Your task to perform on an android device: Show the shopping cart on newegg.com. Add rayovac triple a to the cart on newegg.com, then select checkout. Image 0: 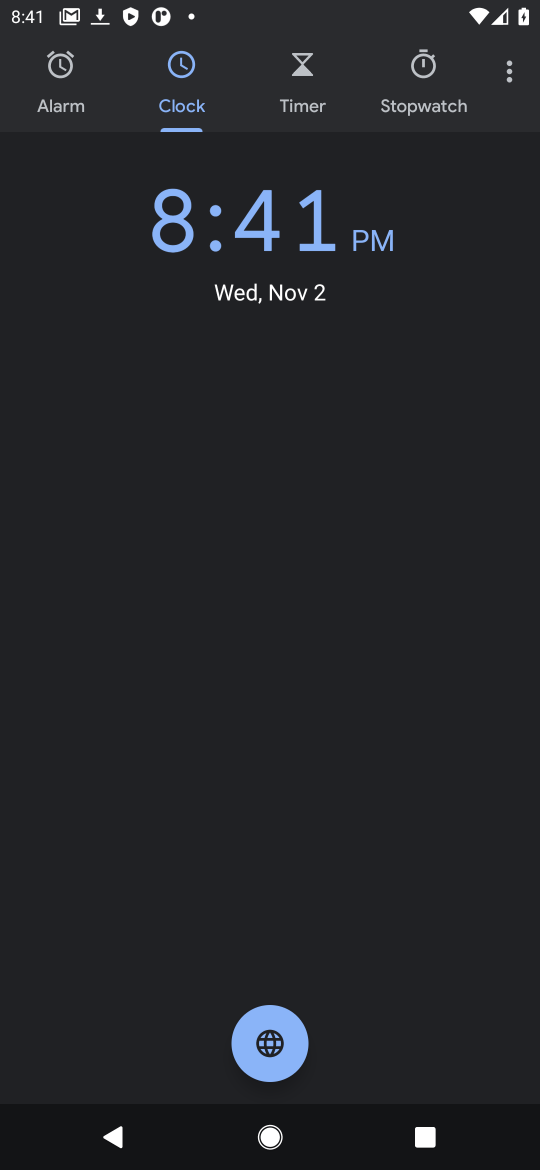
Step 0: press home button
Your task to perform on an android device: Show the shopping cart on newegg.com. Add rayovac triple a to the cart on newegg.com, then select checkout. Image 1: 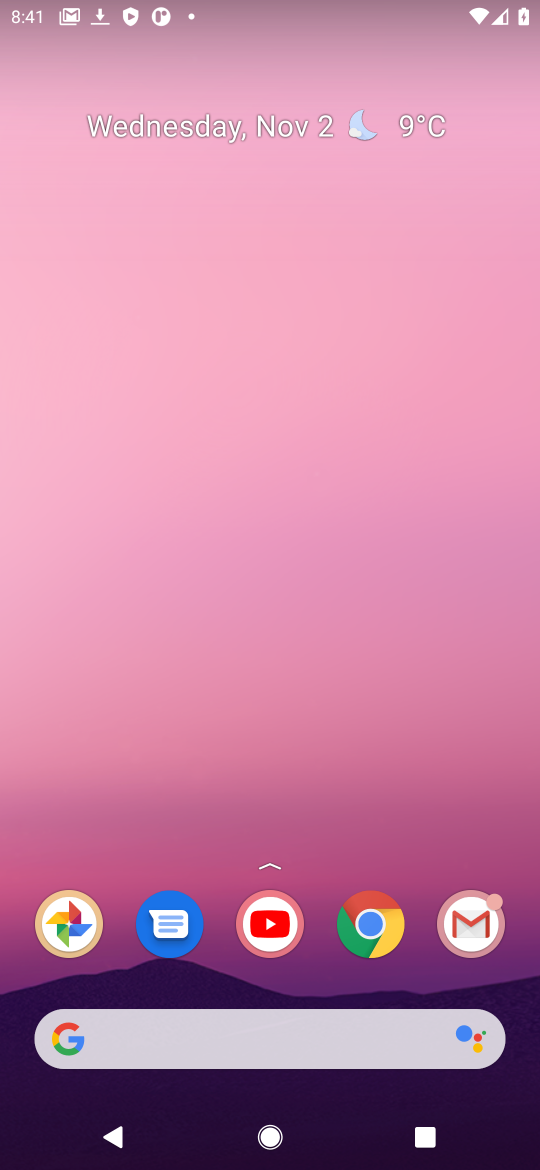
Step 1: click (343, 942)
Your task to perform on an android device: Show the shopping cart on newegg.com. Add rayovac triple a to the cart on newegg.com, then select checkout. Image 2: 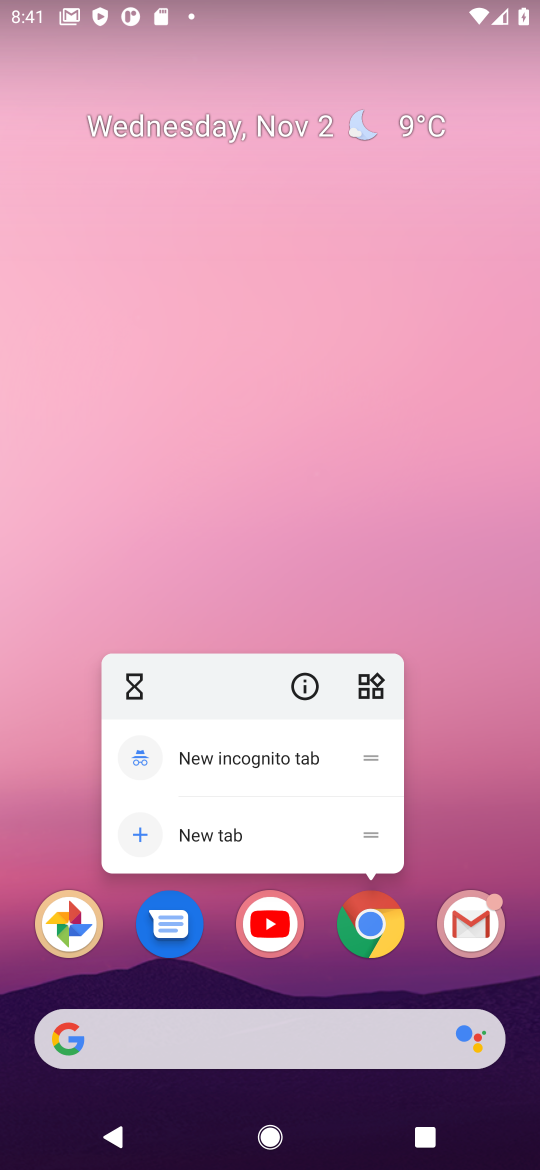
Step 2: click (389, 936)
Your task to perform on an android device: Show the shopping cart on newegg.com. Add rayovac triple a to the cart on newegg.com, then select checkout. Image 3: 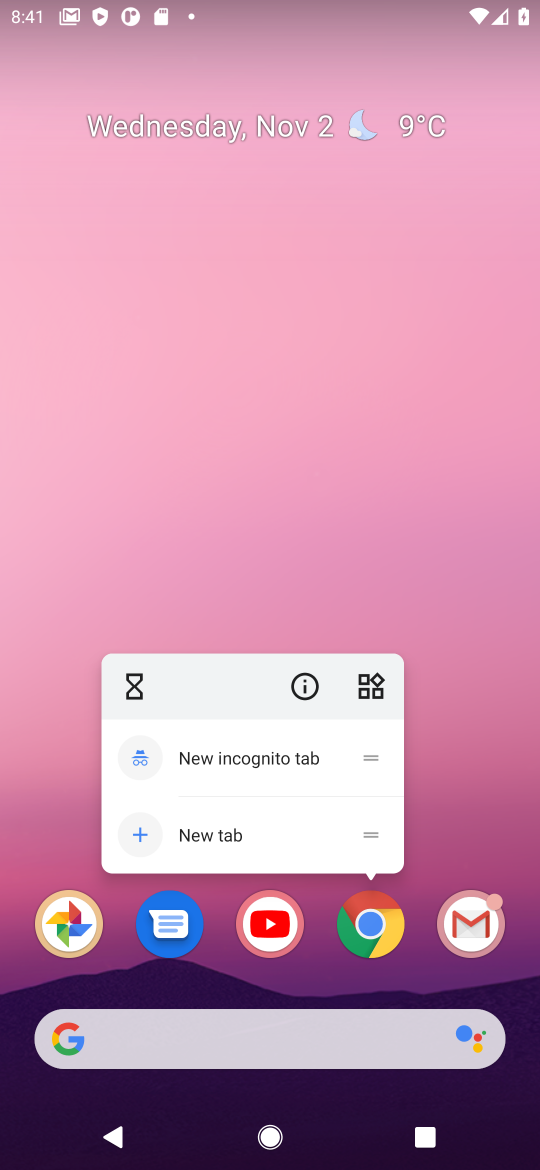
Step 3: click (399, 940)
Your task to perform on an android device: Show the shopping cart on newegg.com. Add rayovac triple a to the cart on newegg.com, then select checkout. Image 4: 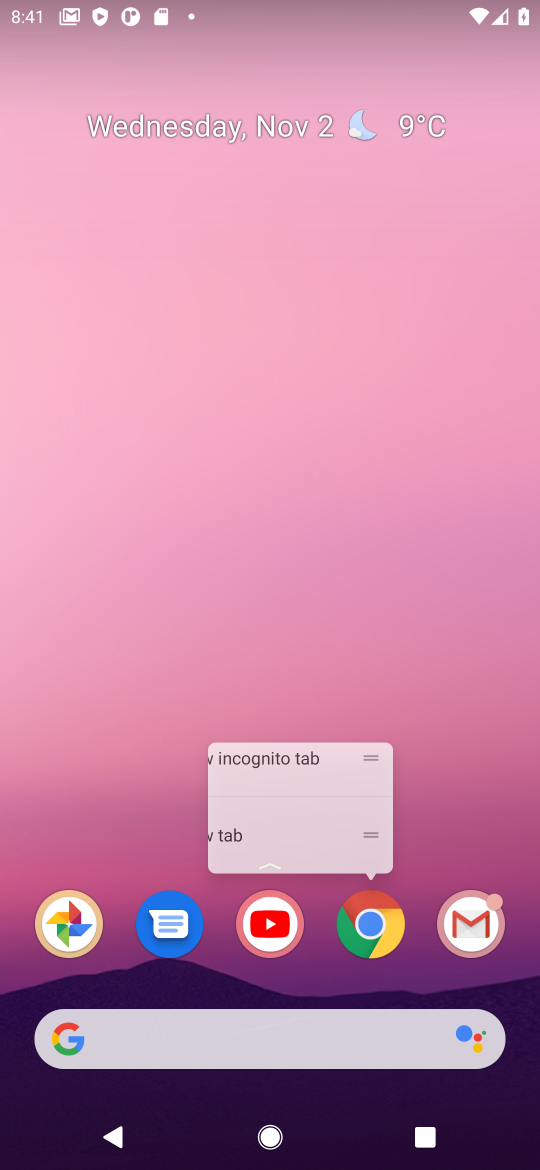
Step 4: click (387, 933)
Your task to perform on an android device: Show the shopping cart on newegg.com. Add rayovac triple a to the cart on newegg.com, then select checkout. Image 5: 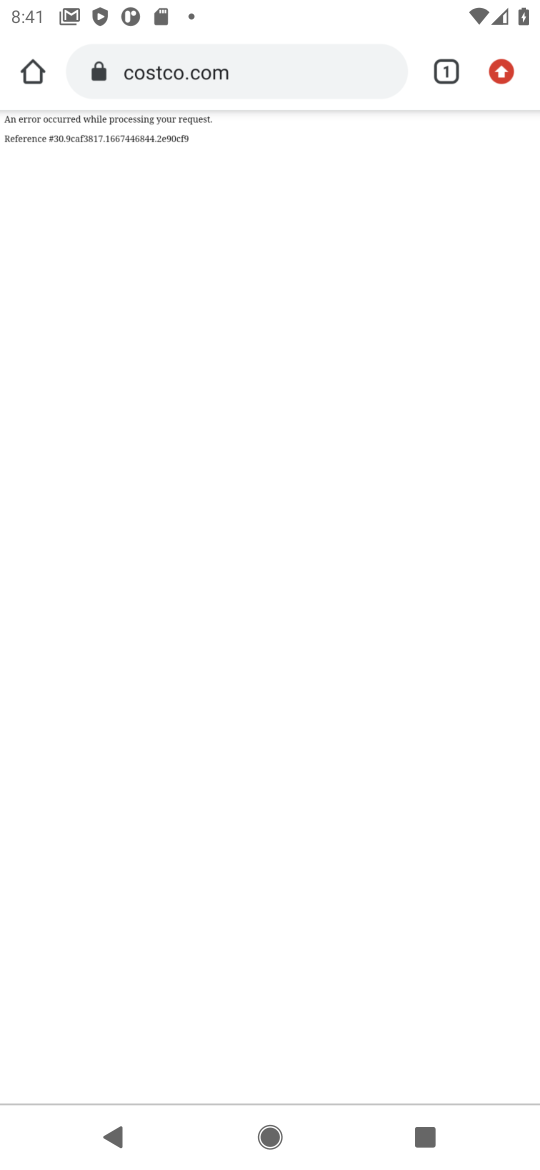
Step 5: press back button
Your task to perform on an android device: Show the shopping cart on newegg.com. Add rayovac triple a to the cart on newegg.com, then select checkout. Image 6: 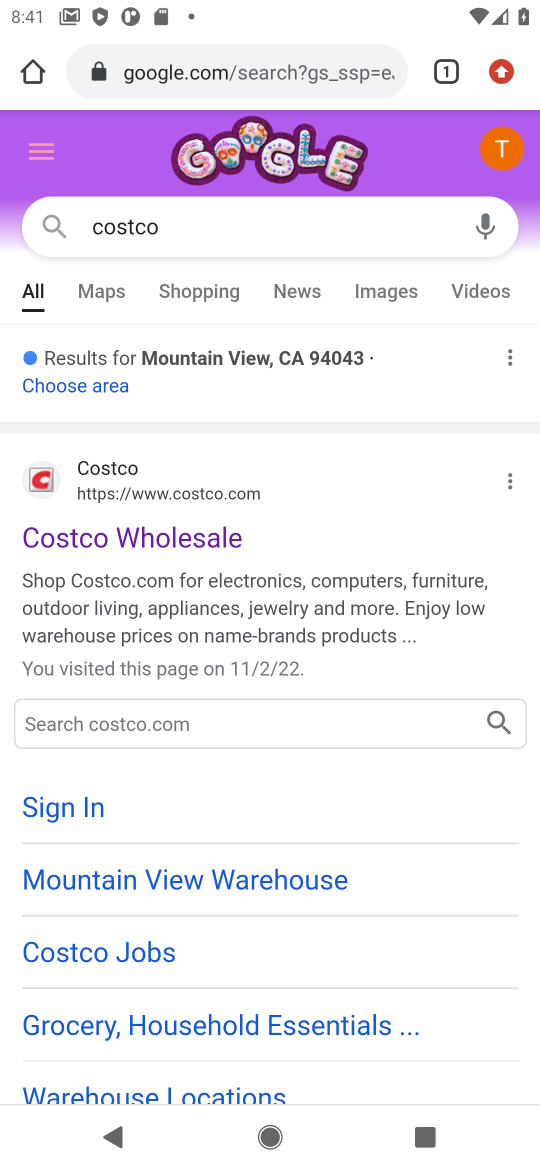
Step 6: click (143, 228)
Your task to perform on an android device: Show the shopping cart on newegg.com. Add rayovac triple a to the cart on newegg.com, then select checkout. Image 7: 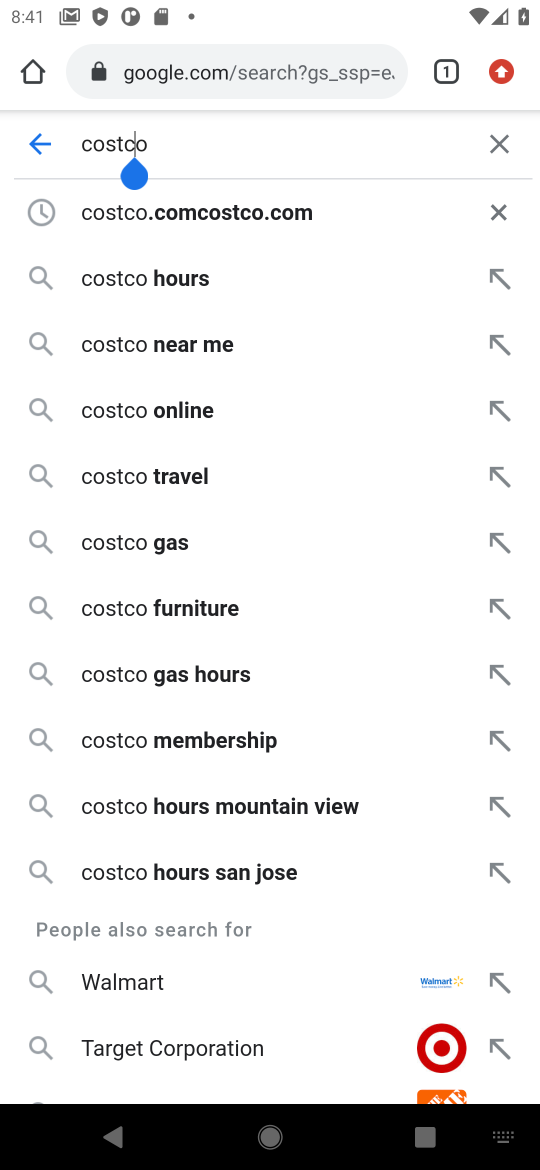
Step 7: click (500, 146)
Your task to perform on an android device: Show the shopping cart on newegg.com. Add rayovac triple a to the cart on newegg.com, then select checkout. Image 8: 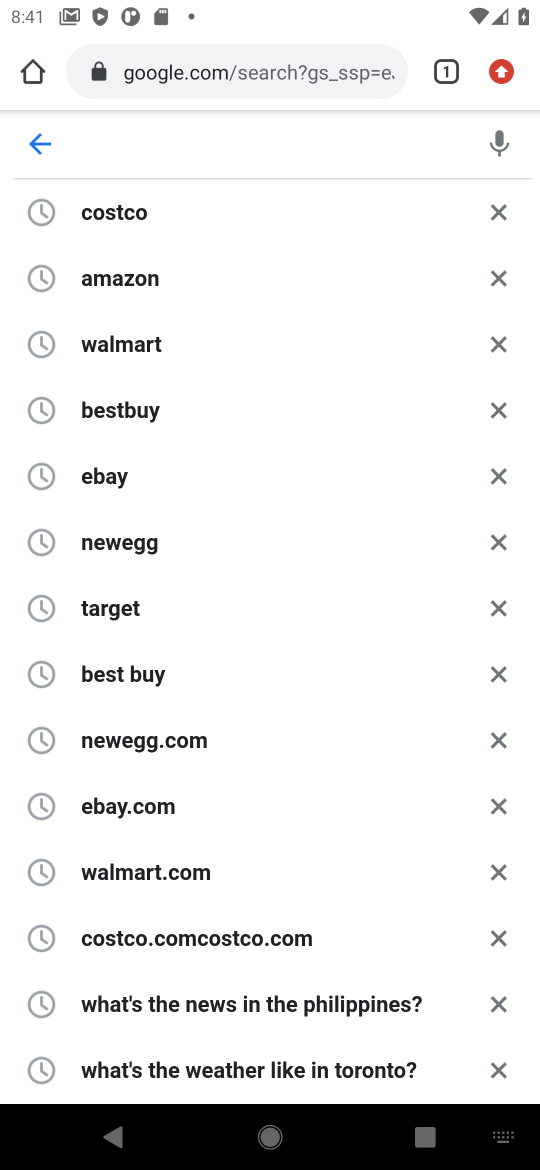
Step 8: type "newegg"
Your task to perform on an android device: Show the shopping cart on newegg.com. Add rayovac triple a to the cart on newegg.com, then select checkout. Image 9: 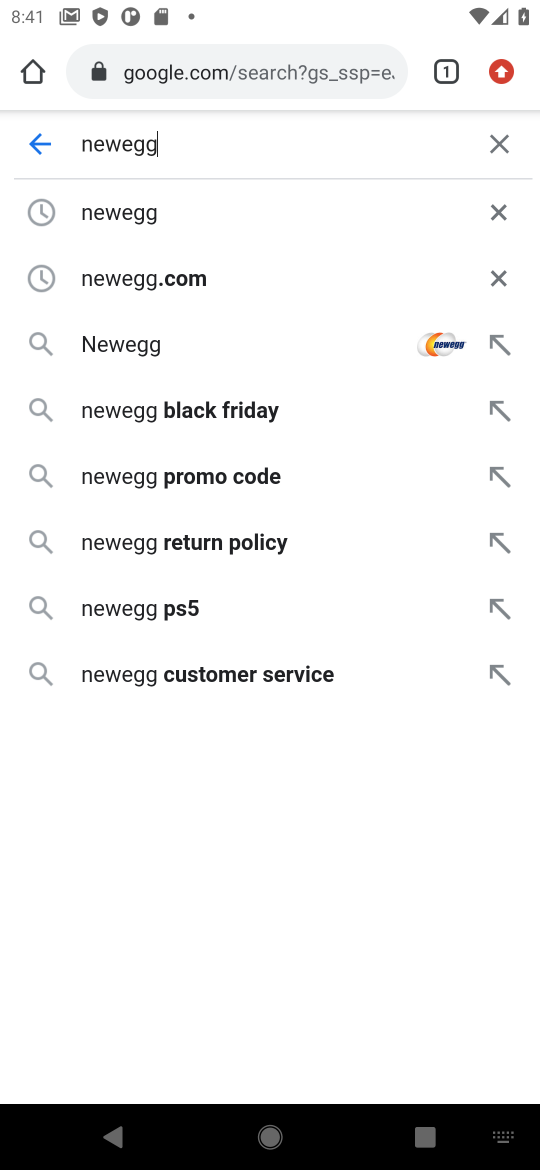
Step 9: type ""
Your task to perform on an android device: Show the shopping cart on newegg.com. Add rayovac triple a to the cart on newegg.com, then select checkout. Image 10: 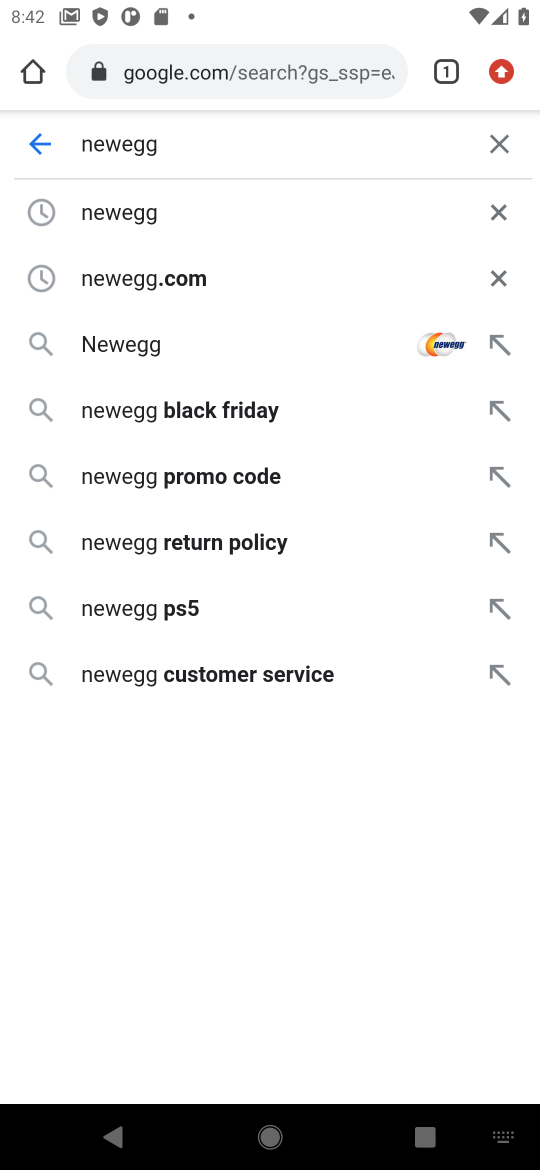
Step 10: click (90, 218)
Your task to perform on an android device: Show the shopping cart on newegg.com. Add rayovac triple a to the cart on newegg.com, then select checkout. Image 11: 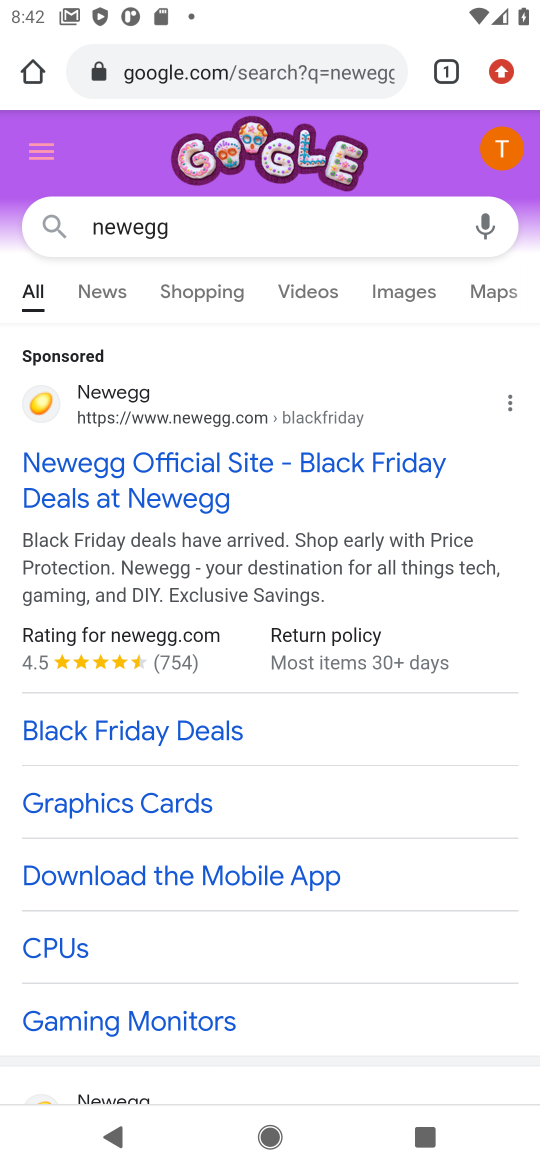
Step 11: drag from (296, 944) to (341, 327)
Your task to perform on an android device: Show the shopping cart on newegg.com. Add rayovac triple a to the cart on newegg.com, then select checkout. Image 12: 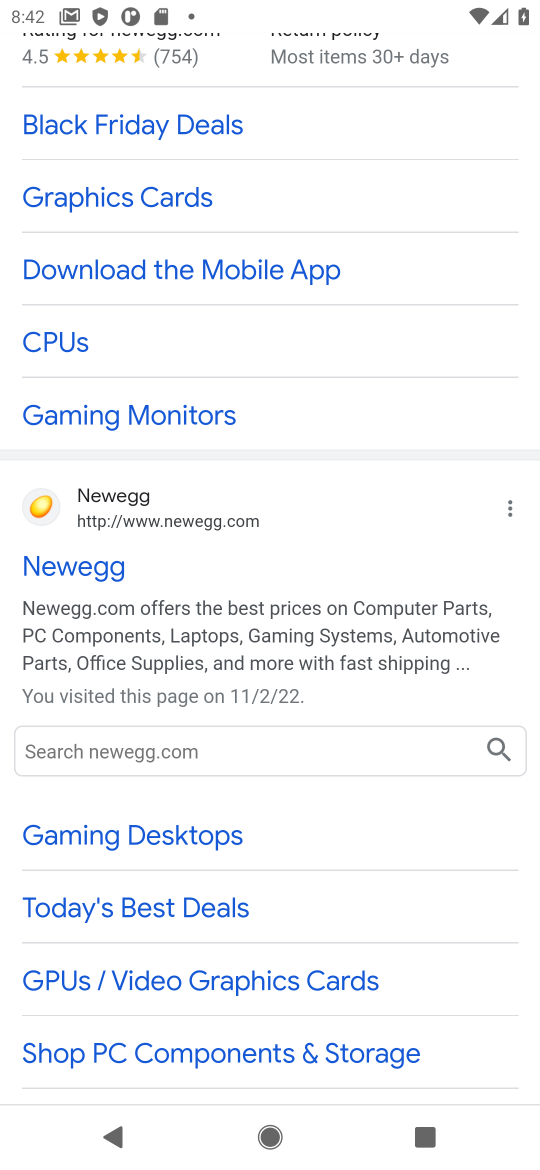
Step 12: click (27, 567)
Your task to perform on an android device: Show the shopping cart on newegg.com. Add rayovac triple a to the cart on newegg.com, then select checkout. Image 13: 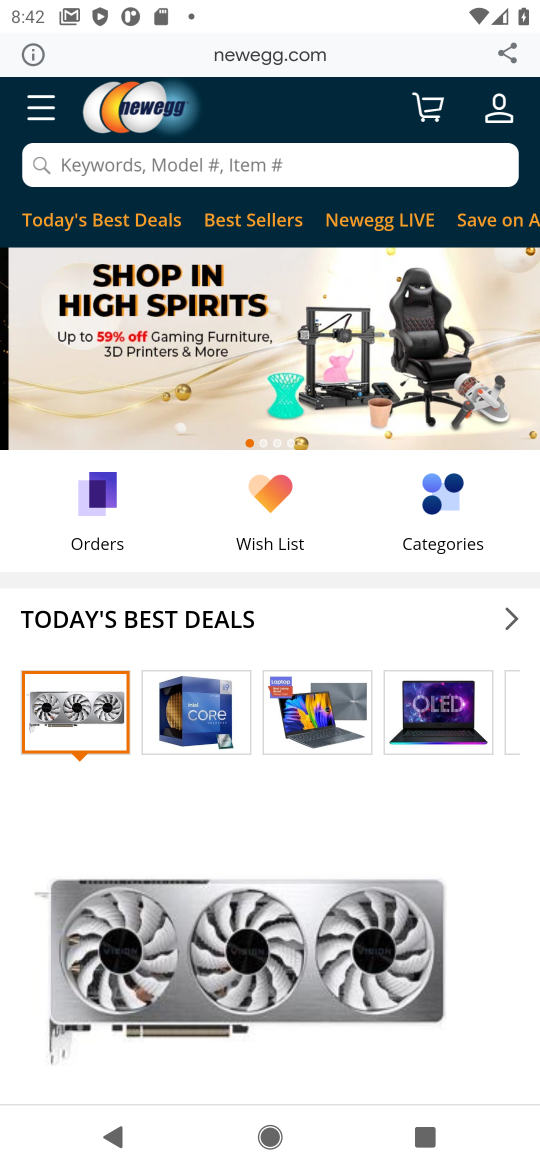
Step 13: click (87, 169)
Your task to perform on an android device: Show the shopping cart on newegg.com. Add rayovac triple a to the cart on newegg.com, then select checkout. Image 14: 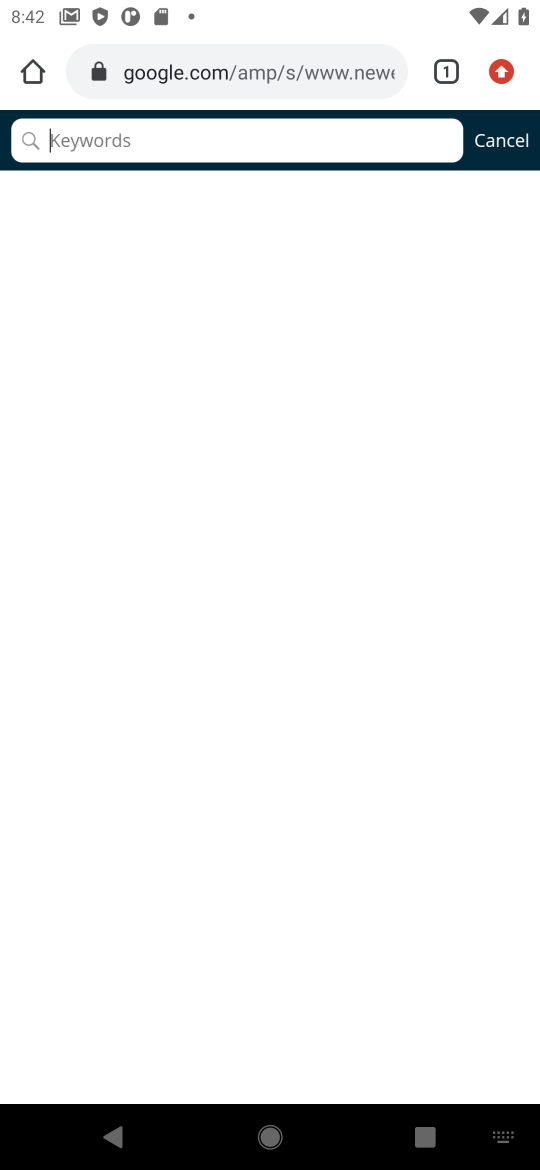
Step 14: type "rayovac triple"
Your task to perform on an android device: Show the shopping cart on newegg.com. Add rayovac triple a to the cart on newegg.com, then select checkout. Image 15: 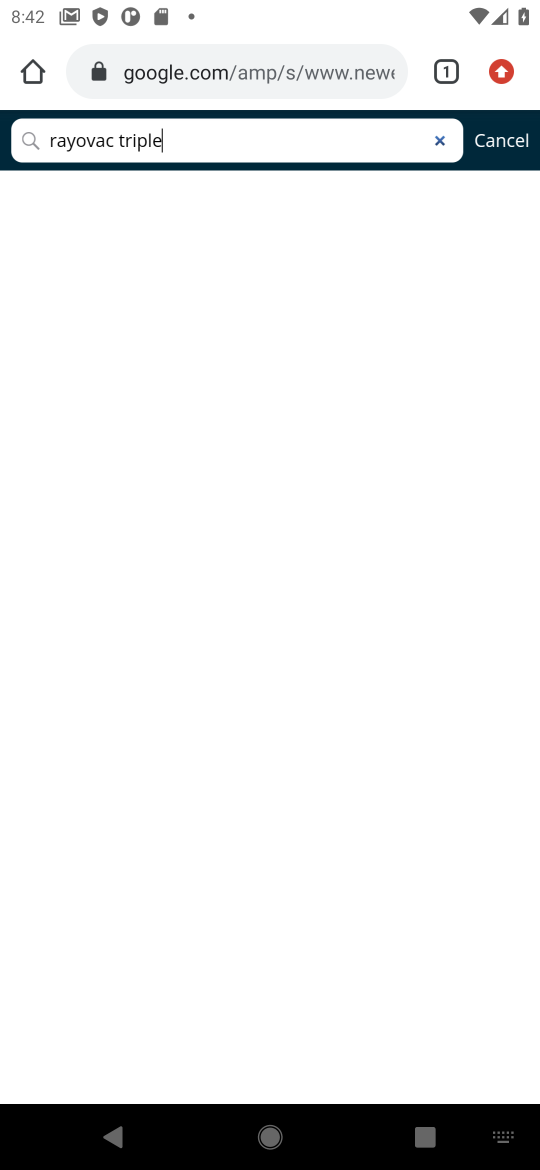
Step 15: type ""
Your task to perform on an android device: Show the shopping cart on newegg.com. Add rayovac triple a to the cart on newegg.com, then select checkout. Image 16: 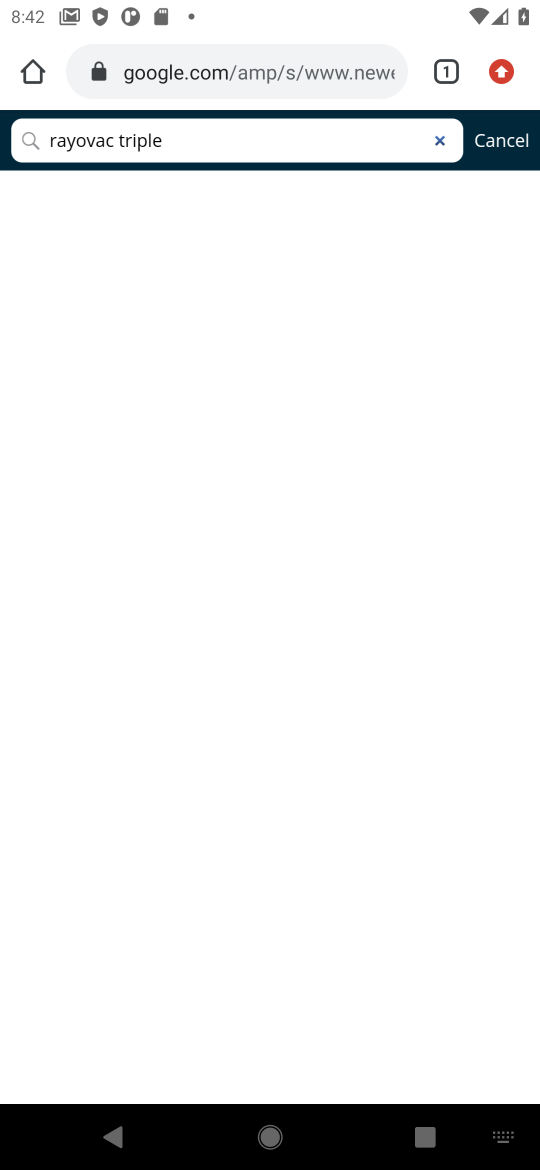
Step 16: type ""
Your task to perform on an android device: Show the shopping cart on newegg.com. Add rayovac triple a to the cart on newegg.com, then select checkout. Image 17: 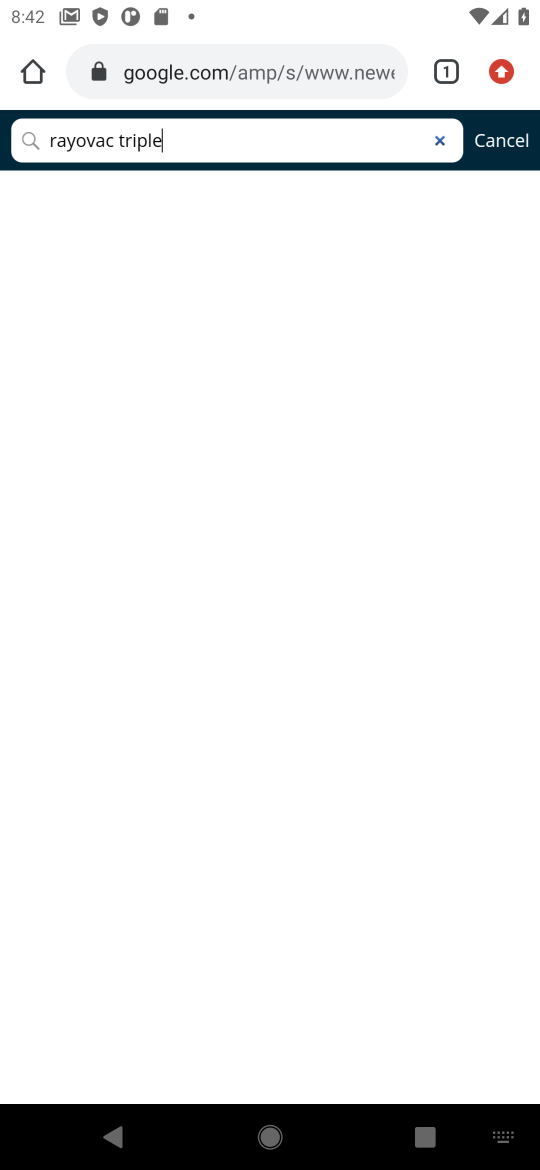
Step 17: click (354, 140)
Your task to perform on an android device: Show the shopping cart on newegg.com. Add rayovac triple a to the cart on newegg.com, then select checkout. Image 18: 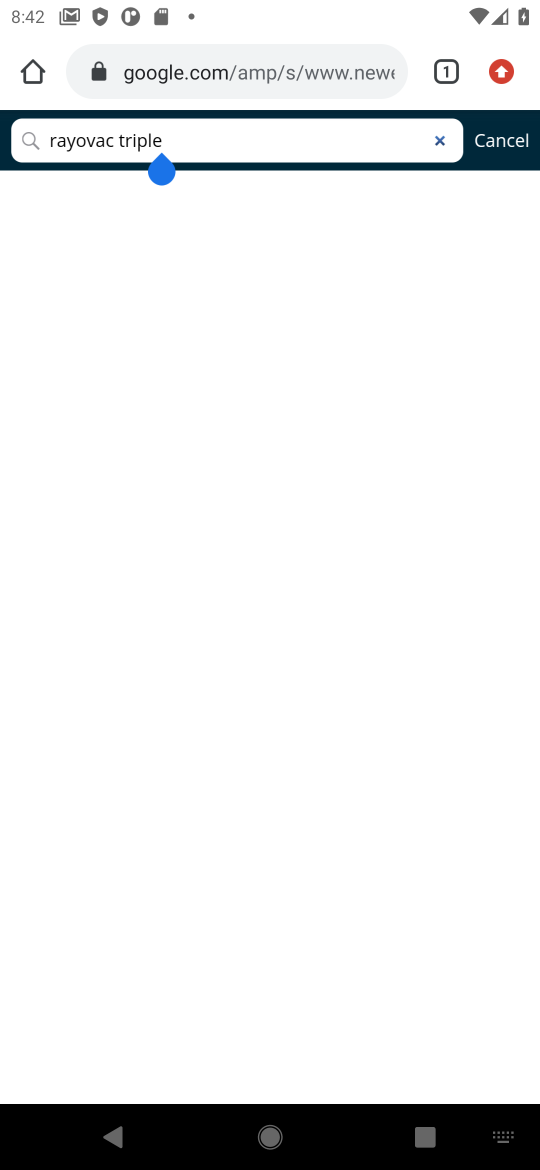
Step 18: click (444, 149)
Your task to perform on an android device: Show the shopping cart on newegg.com. Add rayovac triple a to the cart on newegg.com, then select checkout. Image 19: 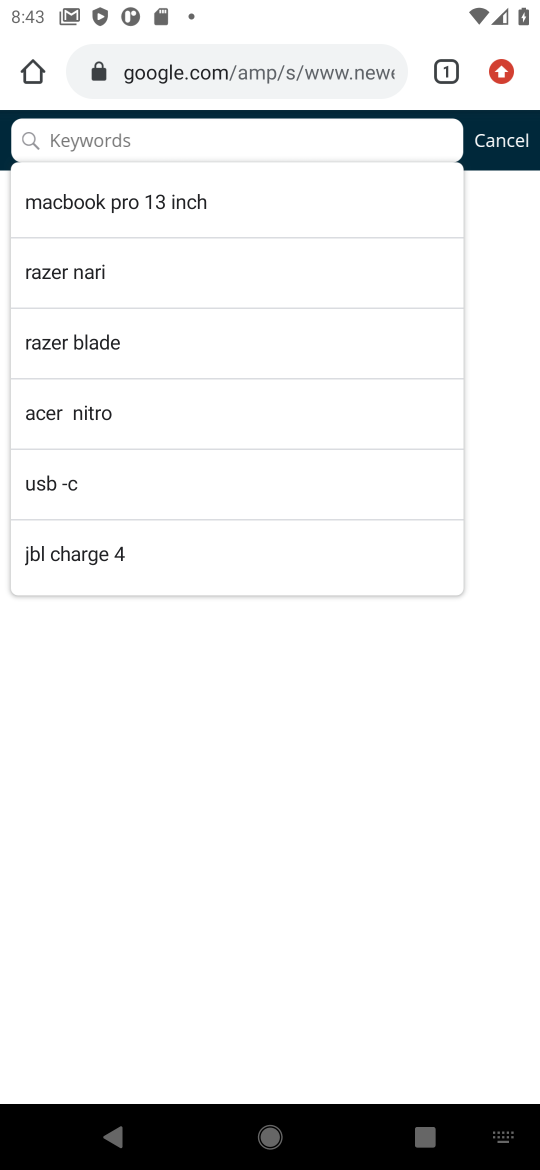
Step 19: type "rayovac"
Your task to perform on an android device: Show the shopping cart on newegg.com. Add rayovac triple a to the cart on newegg.com, then select checkout. Image 20: 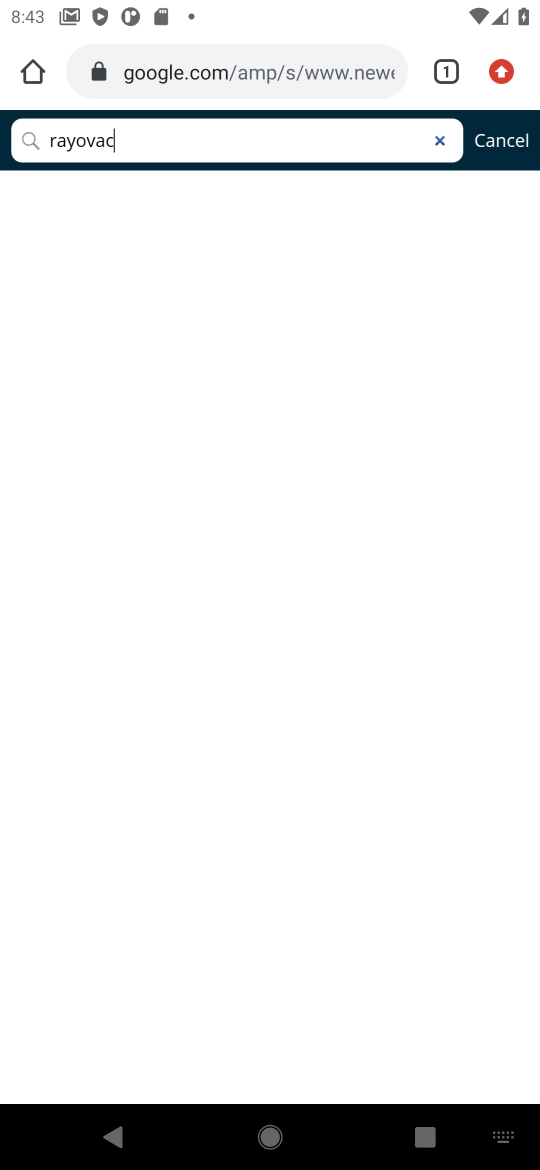
Step 20: type ""
Your task to perform on an android device: Show the shopping cart on newegg.com. Add rayovac triple a to the cart on newegg.com, then select checkout. Image 21: 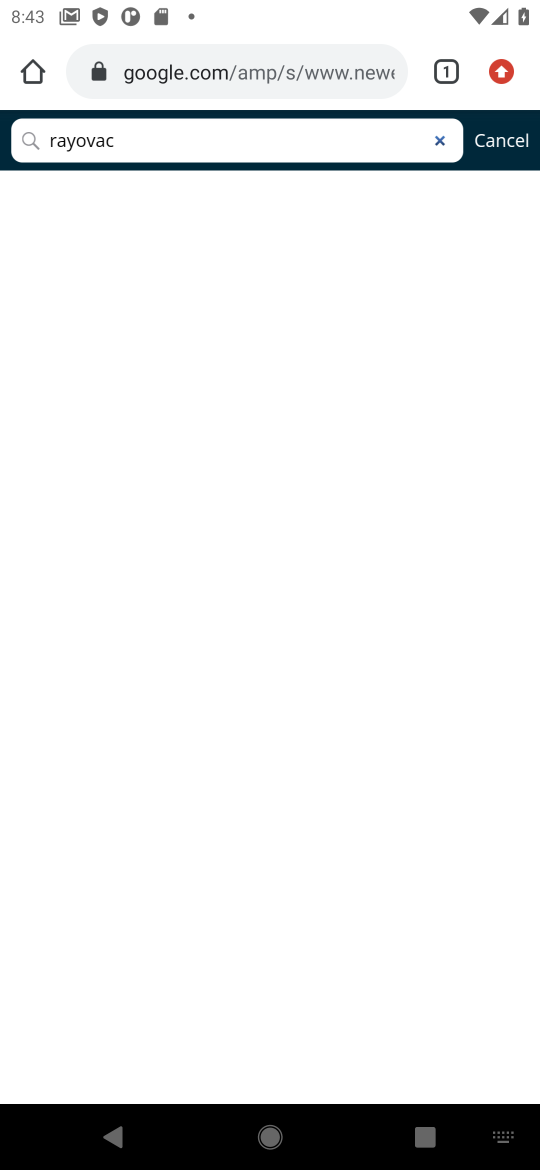
Step 21: press back button
Your task to perform on an android device: Show the shopping cart on newegg.com. Add rayovac triple a to the cart on newegg.com, then select checkout. Image 22: 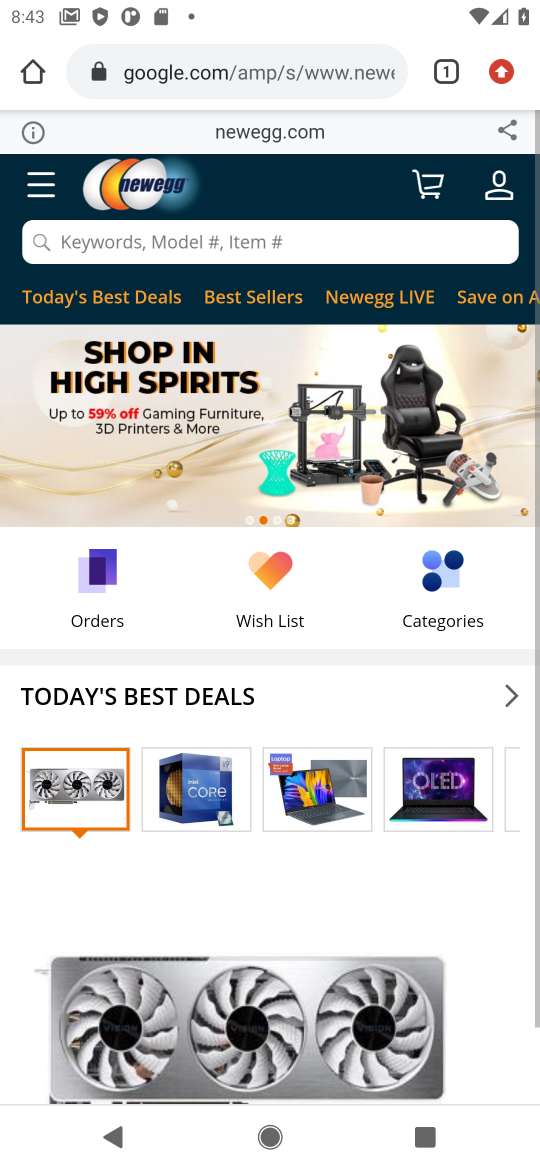
Step 22: click (316, 241)
Your task to perform on an android device: Show the shopping cart on newegg.com. Add rayovac triple a to the cart on newegg.com, then select checkout. Image 23: 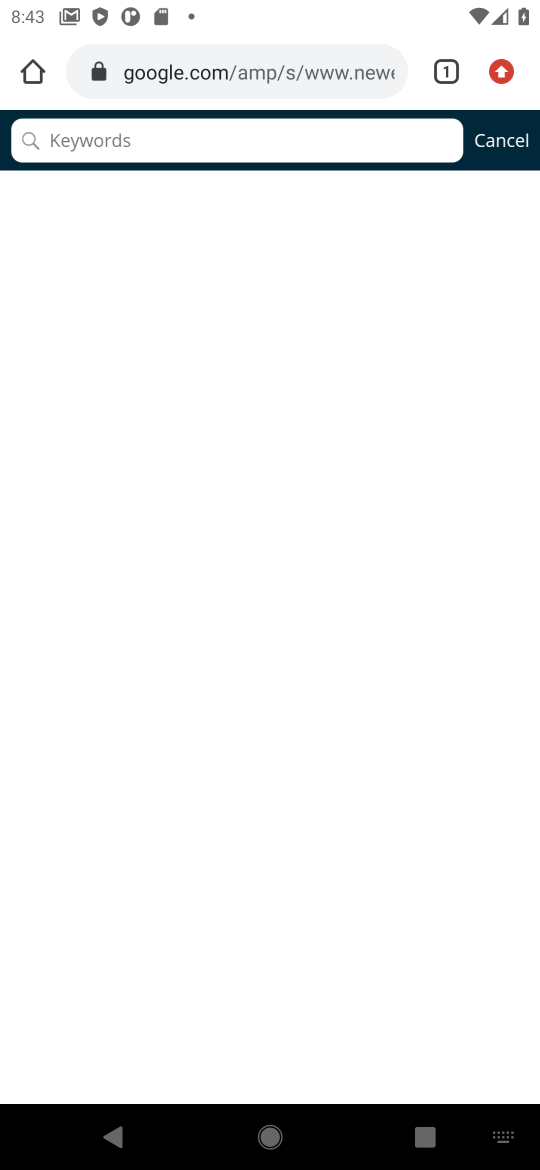
Step 23: click (185, 75)
Your task to perform on an android device: Show the shopping cart on newegg.com. Add rayovac triple a to the cart on newegg.com, then select checkout. Image 24: 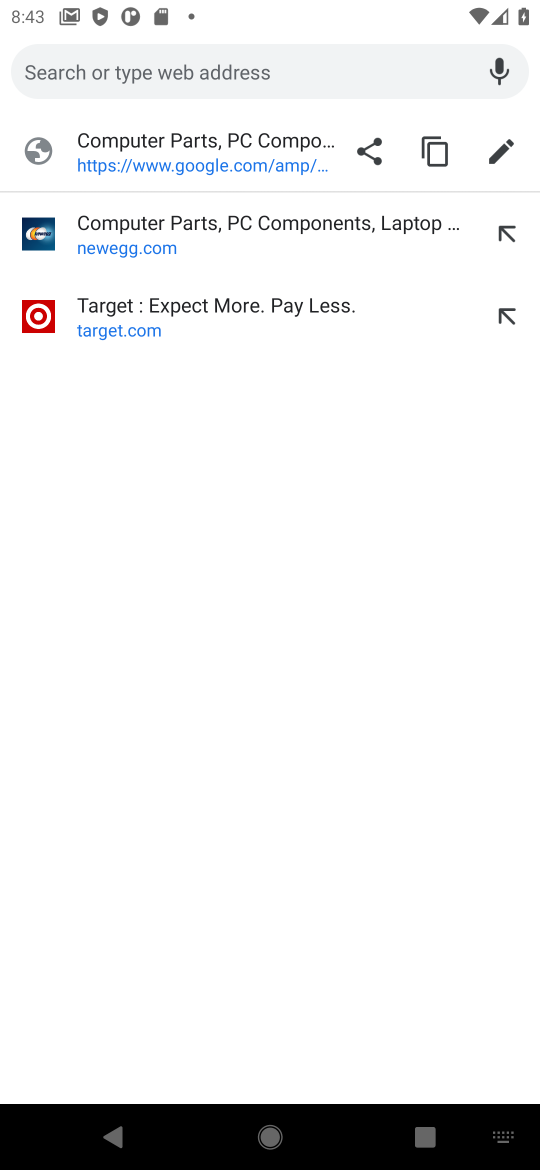
Step 24: type "newegg"
Your task to perform on an android device: Show the shopping cart on newegg.com. Add rayovac triple a to the cart on newegg.com, then select checkout. Image 25: 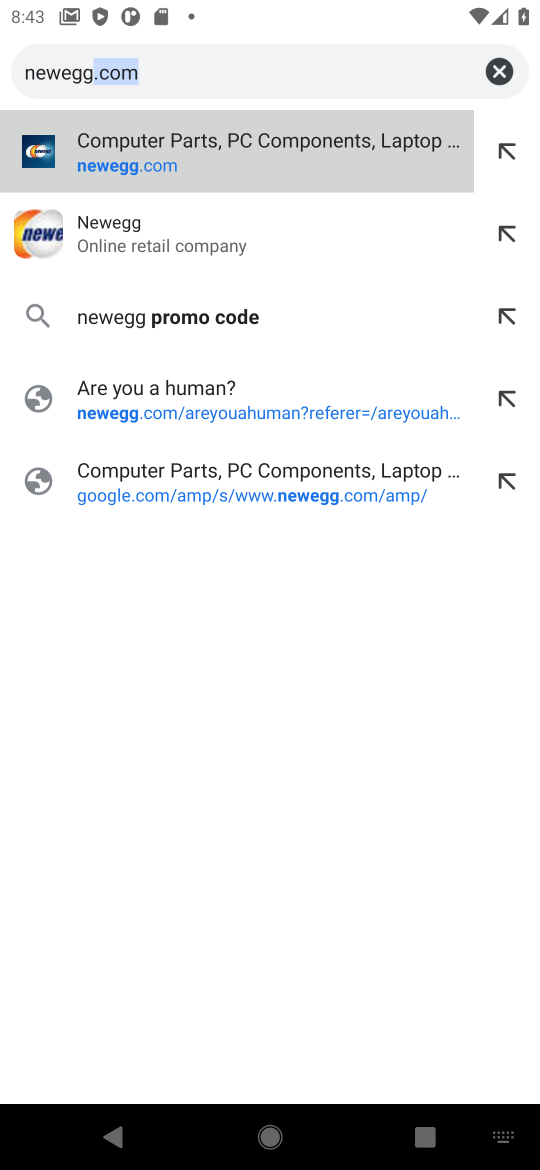
Step 25: type ""
Your task to perform on an android device: Show the shopping cart on newegg.com. Add rayovac triple a to the cart on newegg.com, then select checkout. Image 26: 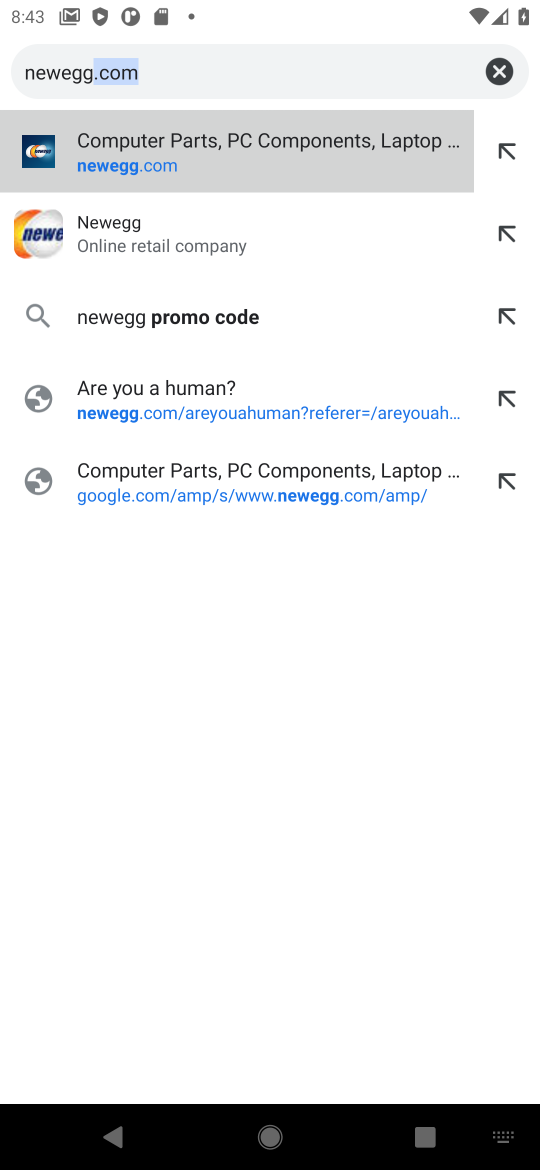
Step 26: click (132, 232)
Your task to perform on an android device: Show the shopping cart on newegg.com. Add rayovac triple a to the cart on newegg.com, then select checkout. Image 27: 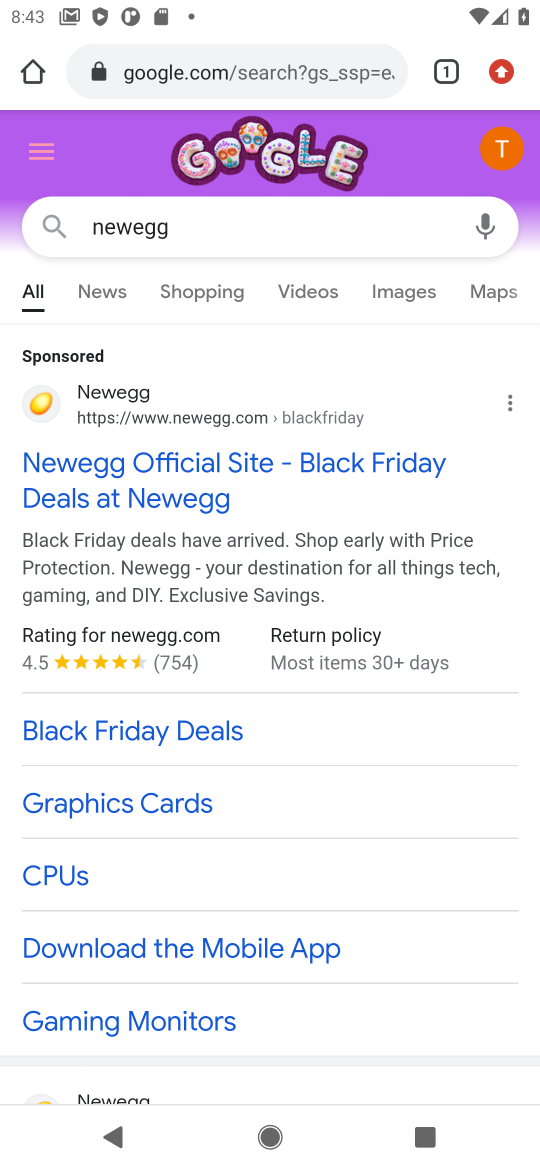
Step 27: drag from (261, 1065) to (256, 367)
Your task to perform on an android device: Show the shopping cart on newegg.com. Add rayovac triple a to the cart on newegg.com, then select checkout. Image 28: 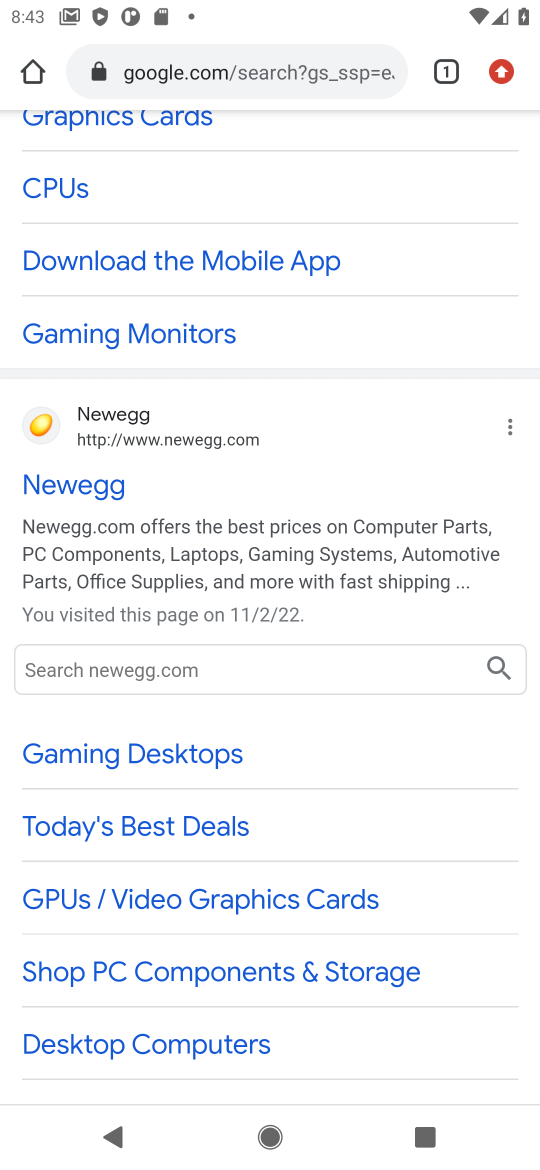
Step 28: drag from (59, 1068) to (70, 779)
Your task to perform on an android device: Show the shopping cart on newegg.com. Add rayovac triple a to the cart on newegg.com, then select checkout. Image 29: 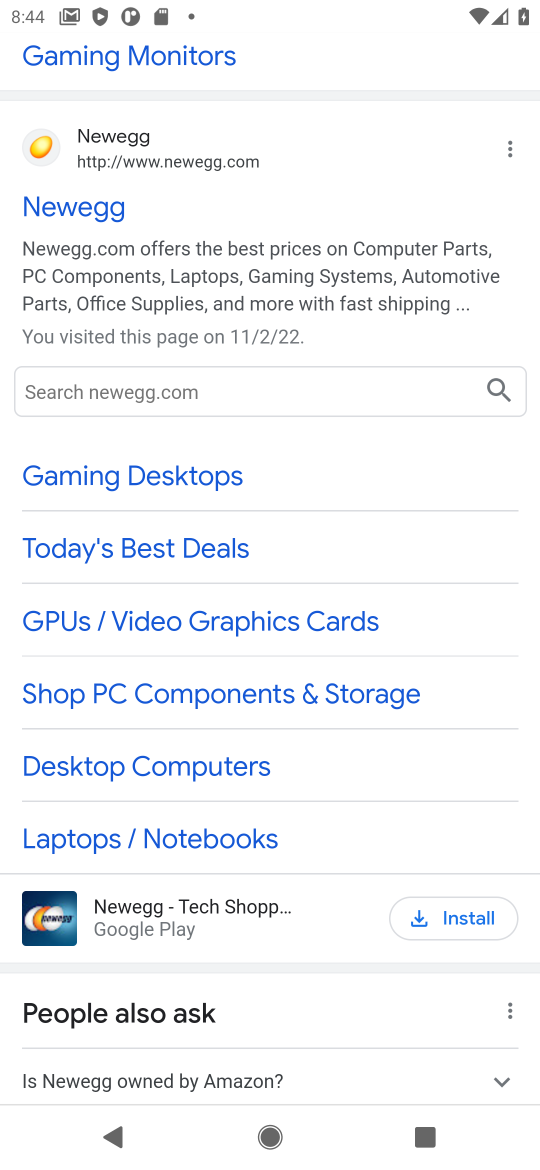
Step 29: click (92, 202)
Your task to perform on an android device: Show the shopping cart on newegg.com. Add rayovac triple a to the cart on newegg.com, then select checkout. Image 30: 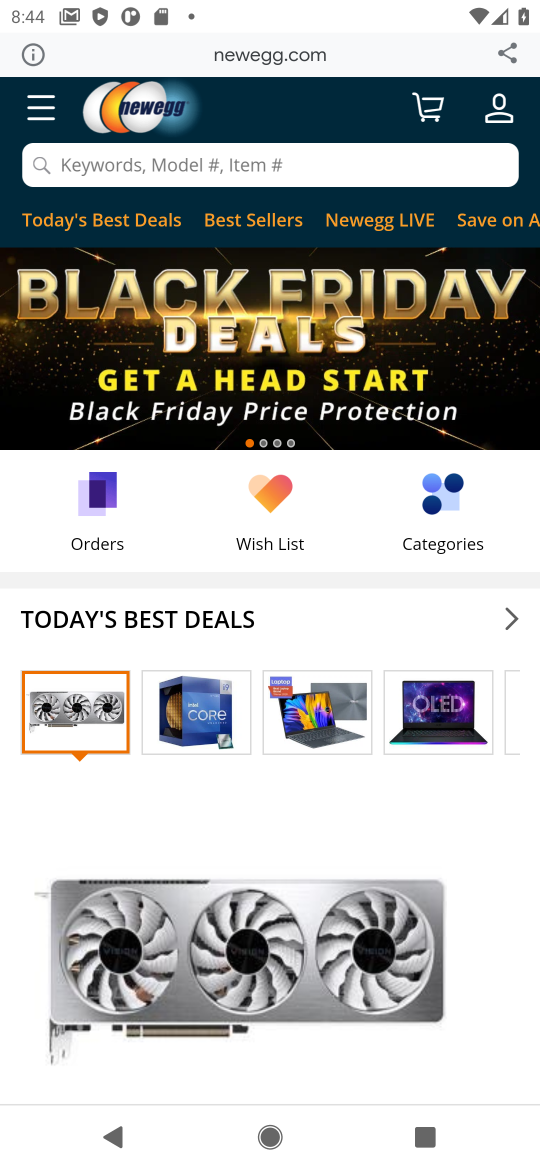
Step 30: click (117, 172)
Your task to perform on an android device: Show the shopping cart on newegg.com. Add rayovac triple a to the cart on newegg.com, then select checkout. Image 31: 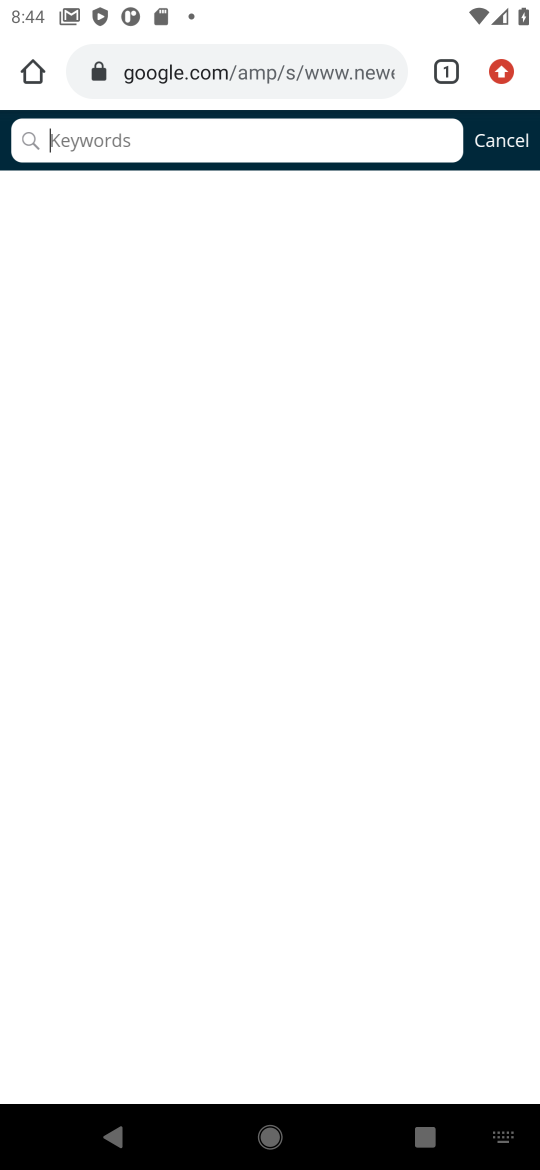
Step 31: type "rayovac triple"
Your task to perform on an android device: Show the shopping cart on newegg.com. Add rayovac triple a to the cart on newegg.com, then select checkout. Image 32: 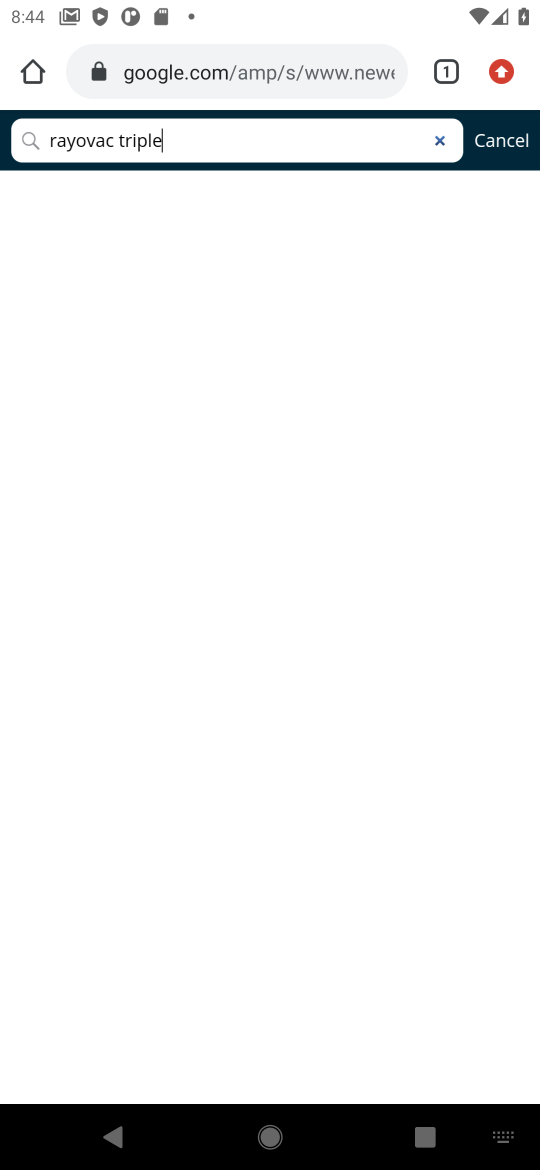
Step 32: type ""
Your task to perform on an android device: Show the shopping cart on newegg.com. Add rayovac triple a to the cart on newegg.com, then select checkout. Image 33: 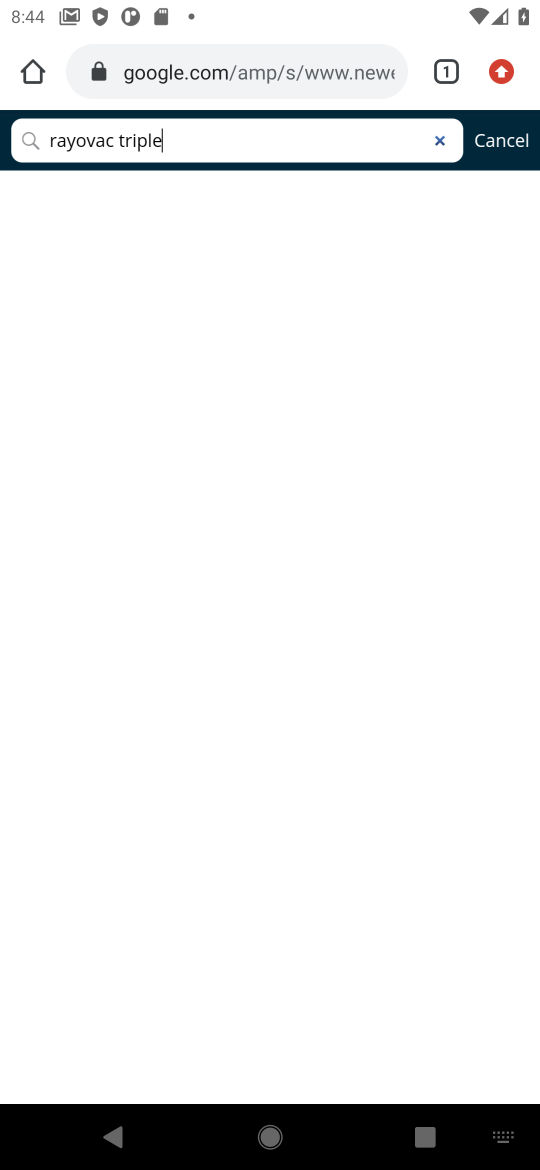
Step 33: click (143, 361)
Your task to perform on an android device: Show the shopping cart on newegg.com. Add rayovac triple a to the cart on newegg.com, then select checkout. Image 34: 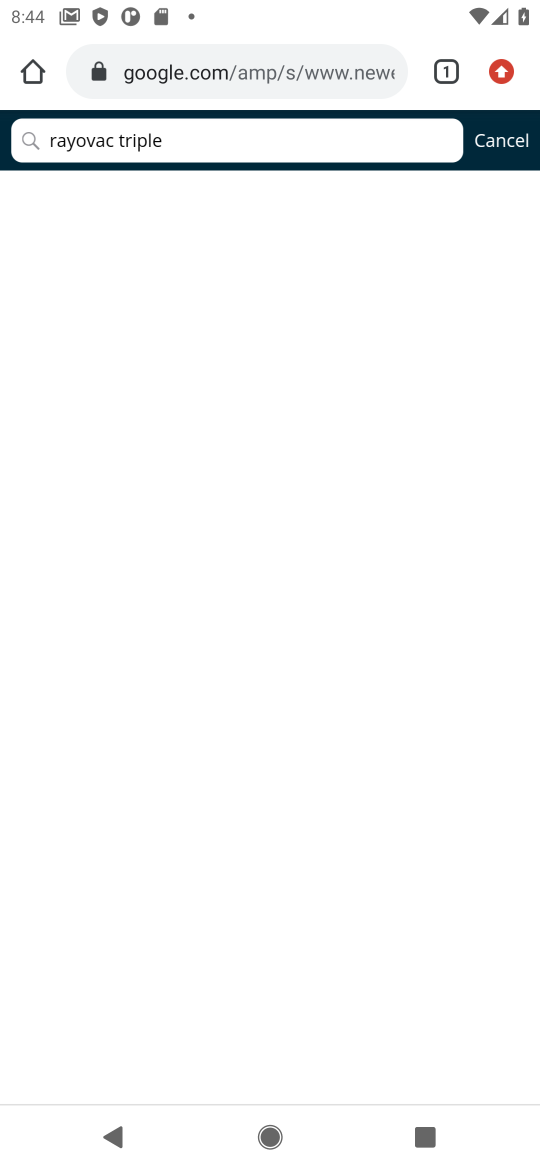
Step 34: task complete